Your task to perform on an android device: Add "jbl flip 4" to the cart on bestbuy.com Image 0: 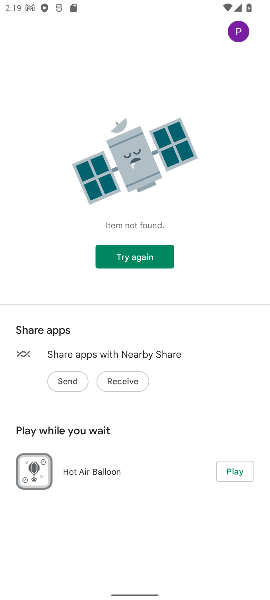
Step 0: press home button
Your task to perform on an android device: Add "jbl flip 4" to the cart on bestbuy.com Image 1: 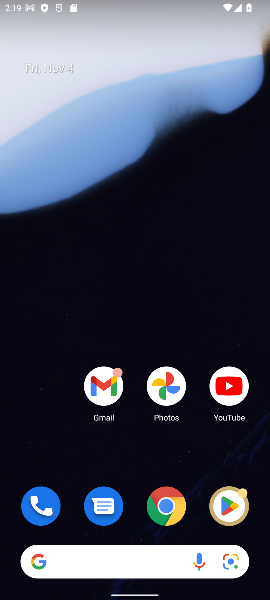
Step 1: drag from (129, 529) to (141, 45)
Your task to perform on an android device: Add "jbl flip 4" to the cart on bestbuy.com Image 2: 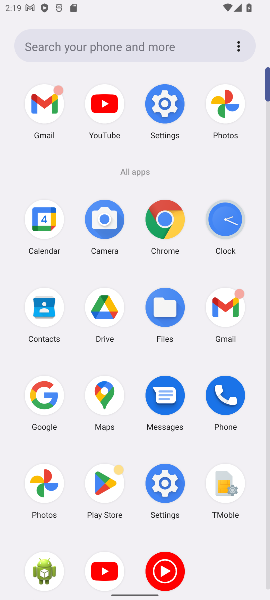
Step 2: click (165, 218)
Your task to perform on an android device: Add "jbl flip 4" to the cart on bestbuy.com Image 3: 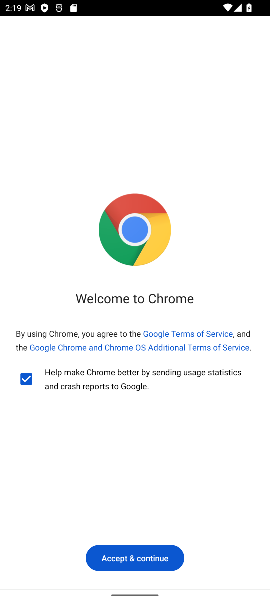
Step 3: click (150, 549)
Your task to perform on an android device: Add "jbl flip 4" to the cart on bestbuy.com Image 4: 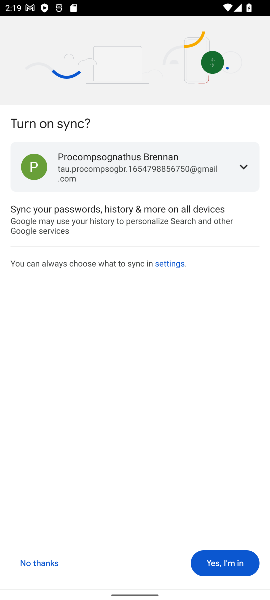
Step 4: click (241, 564)
Your task to perform on an android device: Add "jbl flip 4" to the cart on bestbuy.com Image 5: 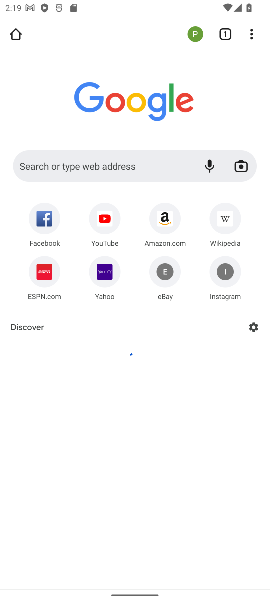
Step 5: click (111, 165)
Your task to perform on an android device: Add "jbl flip 4" to the cart on bestbuy.com Image 6: 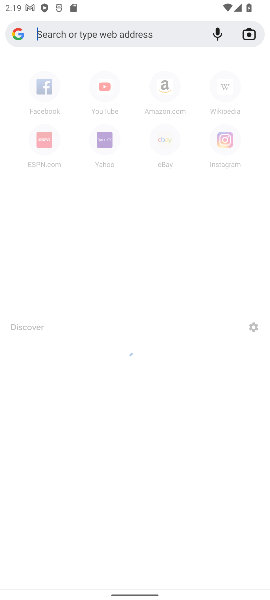
Step 6: click (149, 36)
Your task to perform on an android device: Add "jbl flip 4" to the cart on bestbuy.com Image 7: 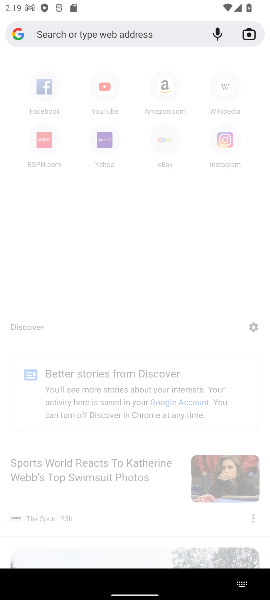
Step 7: type "bestbuy.com"
Your task to perform on an android device: Add "jbl flip 4" to the cart on bestbuy.com Image 8: 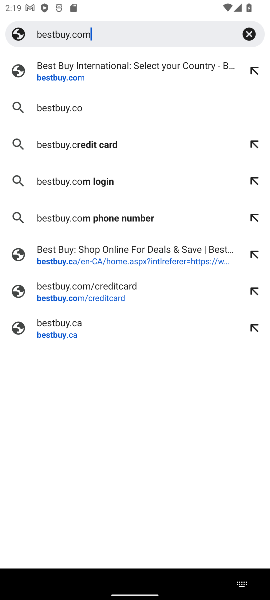
Step 8: press enter
Your task to perform on an android device: Add "jbl flip 4" to the cart on bestbuy.com Image 9: 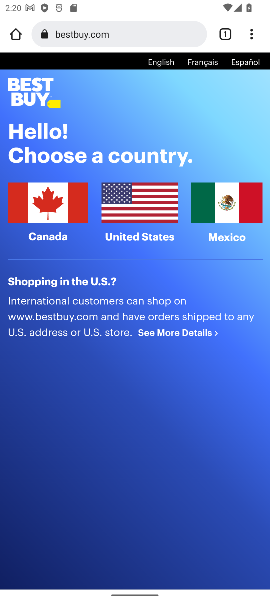
Step 9: click (40, 208)
Your task to perform on an android device: Add "jbl flip 4" to the cart on bestbuy.com Image 10: 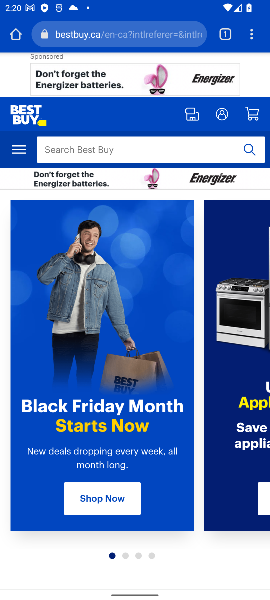
Step 10: click (150, 147)
Your task to perform on an android device: Add "jbl flip 4" to the cart on bestbuy.com Image 11: 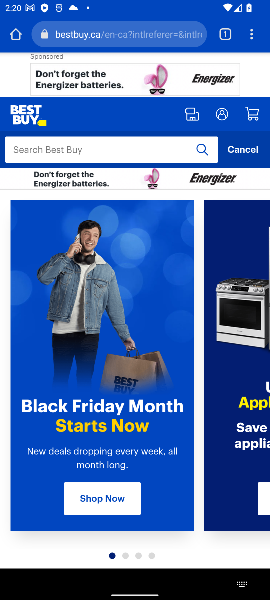
Step 11: type "jbl flip 4"
Your task to perform on an android device: Add "jbl flip 4" to the cart on bestbuy.com Image 12: 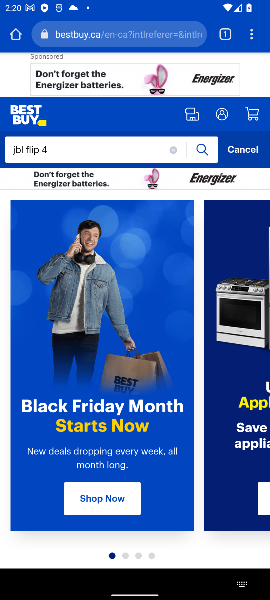
Step 12: press enter
Your task to perform on an android device: Add "jbl flip 4" to the cart on bestbuy.com Image 13: 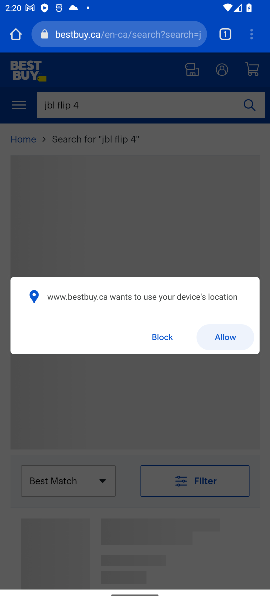
Step 13: click (165, 334)
Your task to perform on an android device: Add "jbl flip 4" to the cart on bestbuy.com Image 14: 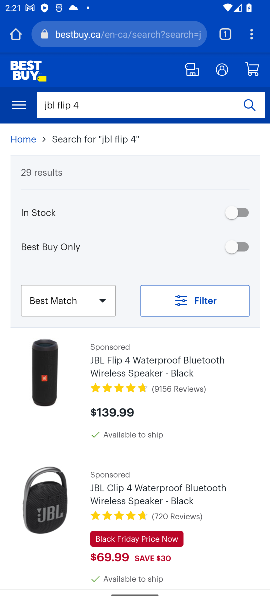
Step 14: drag from (209, 455) to (201, 229)
Your task to perform on an android device: Add "jbl flip 4" to the cart on bestbuy.com Image 15: 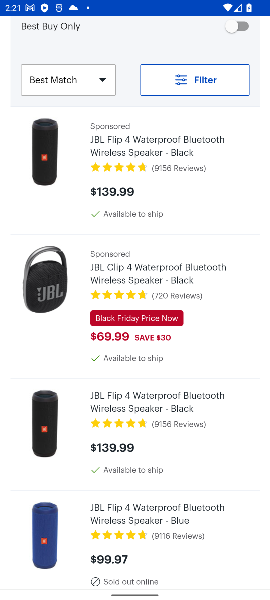
Step 15: click (124, 283)
Your task to perform on an android device: Add "jbl flip 4" to the cart on bestbuy.com Image 16: 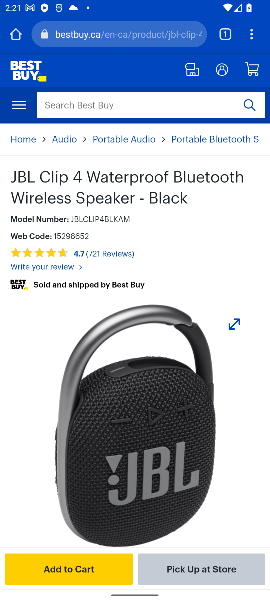
Step 16: click (85, 570)
Your task to perform on an android device: Add "jbl flip 4" to the cart on bestbuy.com Image 17: 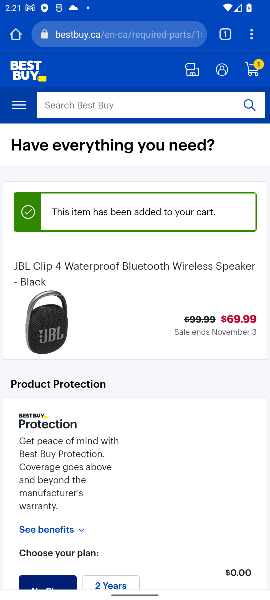
Step 17: task complete